Your task to perform on an android device: What's the weather going to be tomorrow? Image 0: 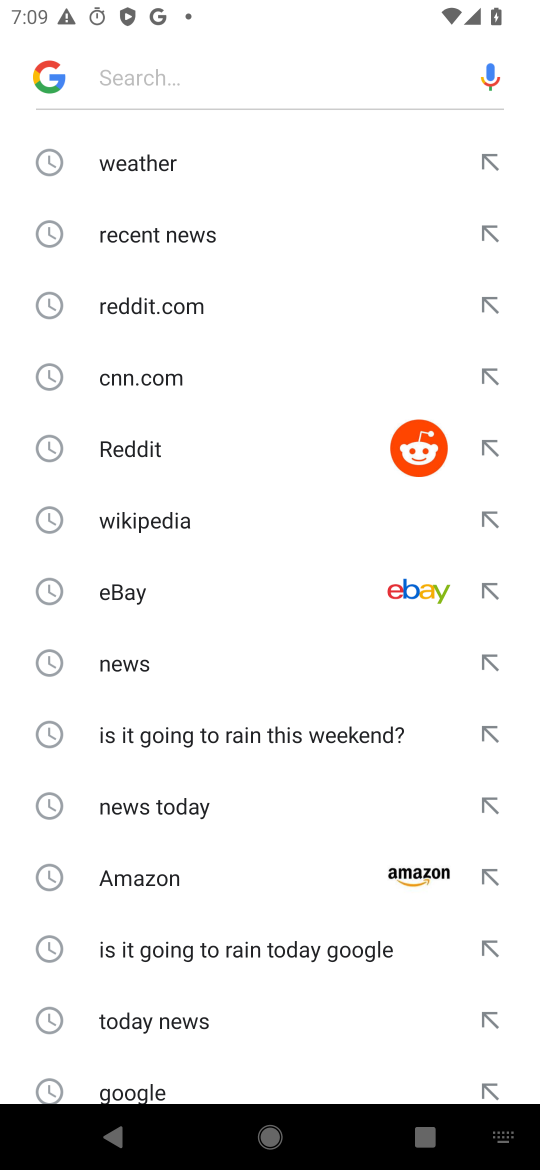
Step 0: press home button
Your task to perform on an android device: What's the weather going to be tomorrow? Image 1: 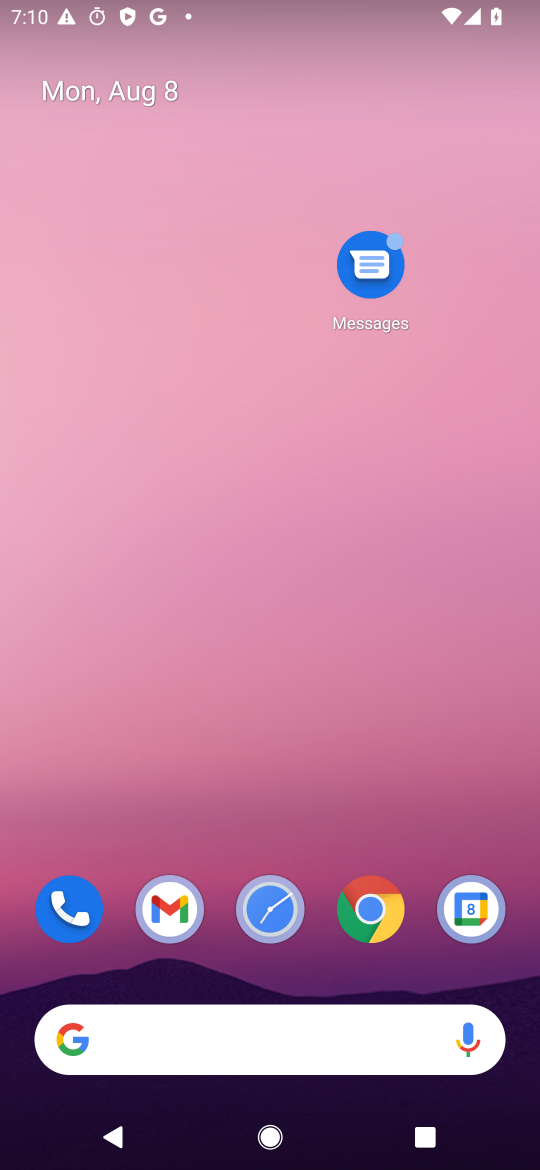
Step 1: click (188, 1039)
Your task to perform on an android device: What's the weather going to be tomorrow? Image 2: 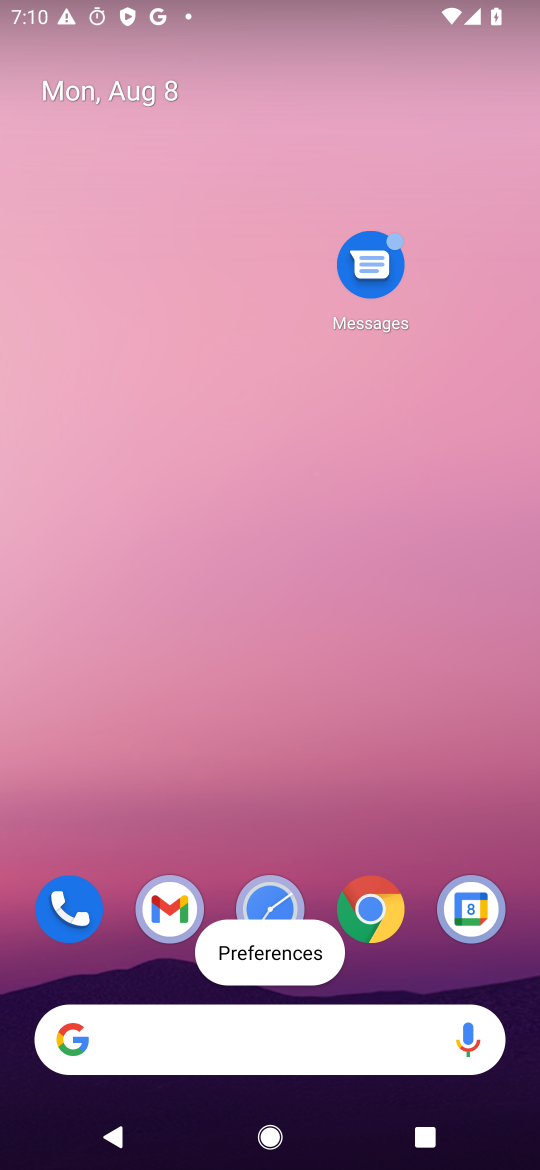
Step 2: click (161, 1038)
Your task to perform on an android device: What's the weather going to be tomorrow? Image 3: 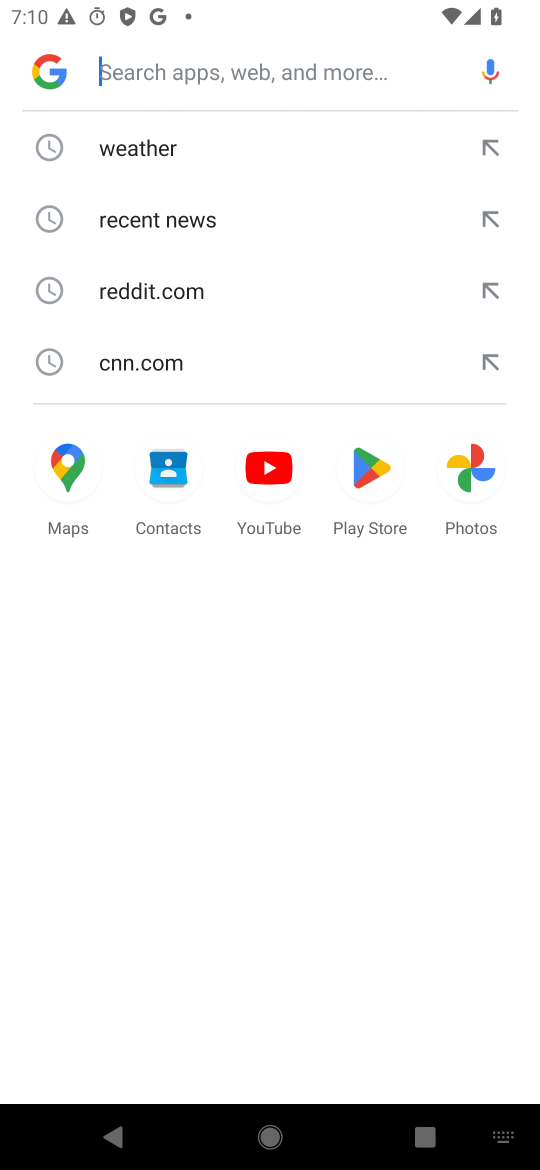
Step 3: click (158, 151)
Your task to perform on an android device: What's the weather going to be tomorrow? Image 4: 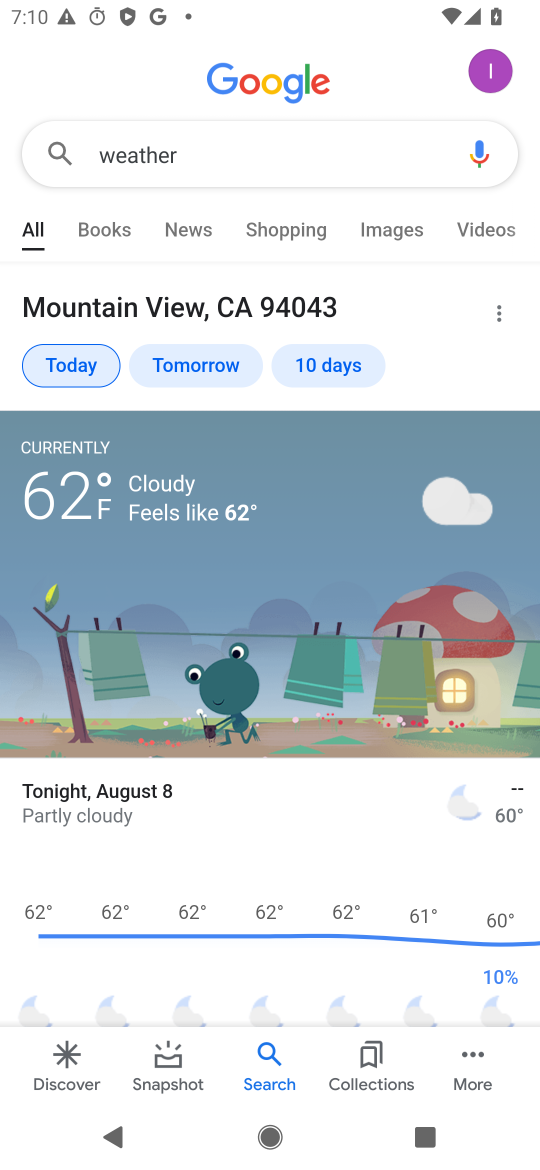
Step 4: click (217, 360)
Your task to perform on an android device: What's the weather going to be tomorrow? Image 5: 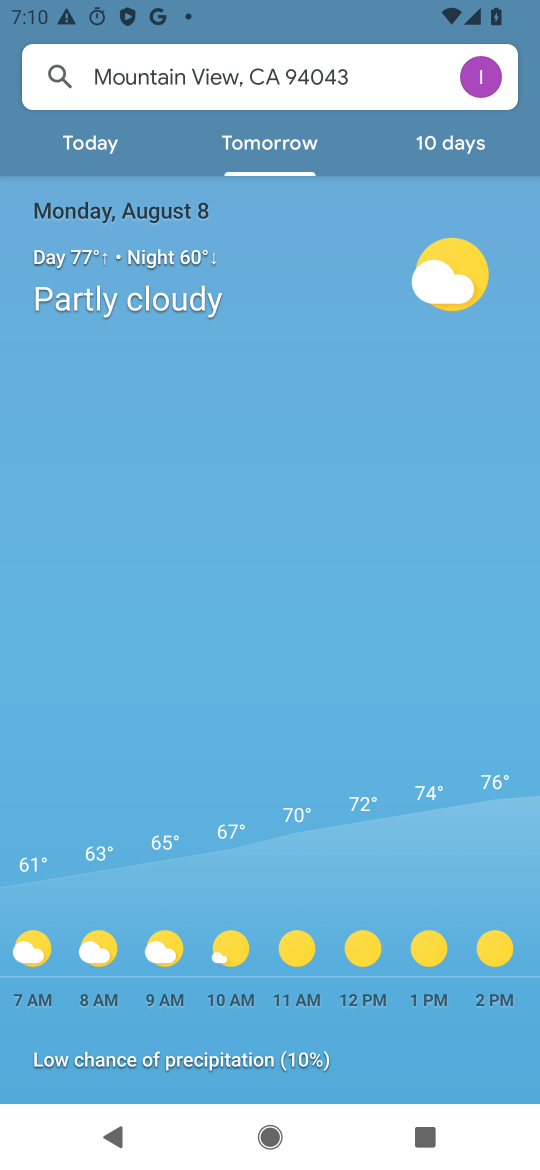
Step 5: task complete